Your task to perform on an android device: Go to Wikipedia Image 0: 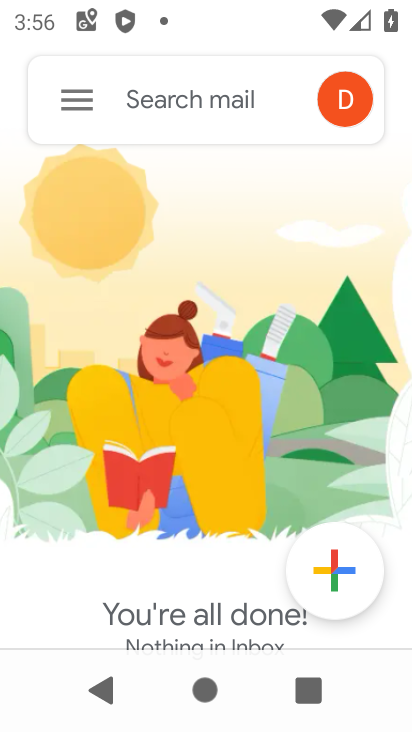
Step 0: task complete